Your task to perform on an android device: find photos in the google photos app Image 0: 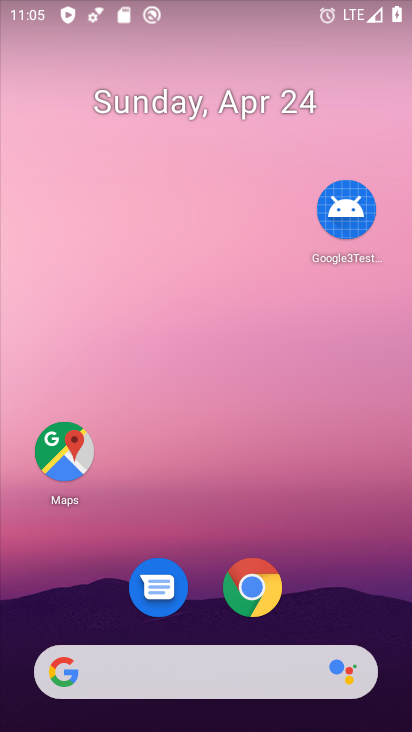
Step 0: drag from (342, 576) to (274, 126)
Your task to perform on an android device: find photos in the google photos app Image 1: 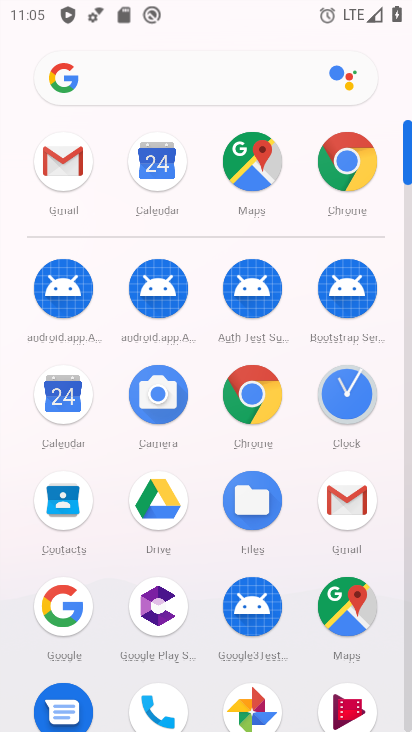
Step 1: drag from (196, 557) to (218, 212)
Your task to perform on an android device: find photos in the google photos app Image 2: 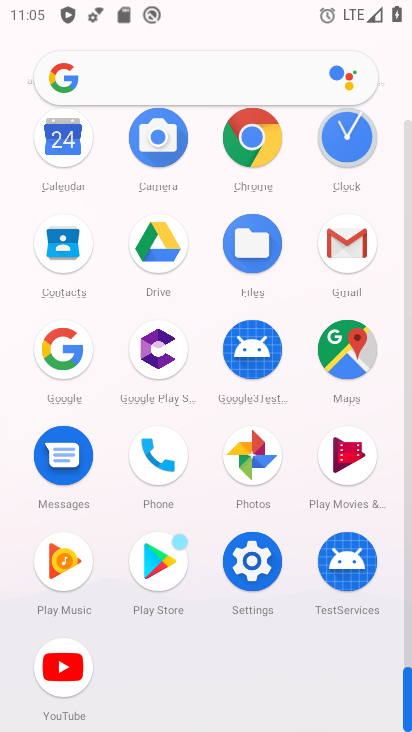
Step 2: click (255, 465)
Your task to perform on an android device: find photos in the google photos app Image 3: 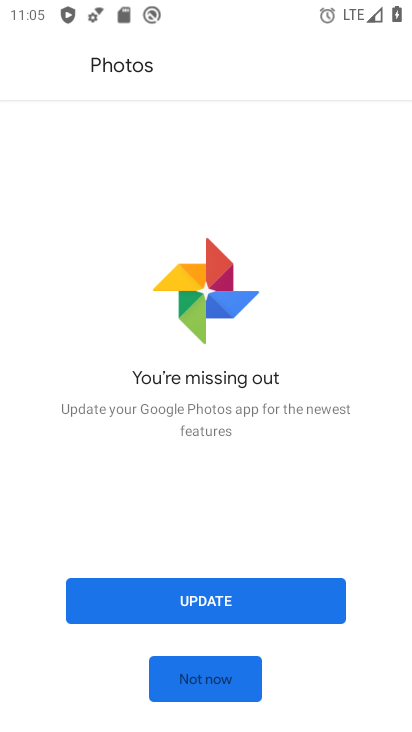
Step 3: click (270, 603)
Your task to perform on an android device: find photos in the google photos app Image 4: 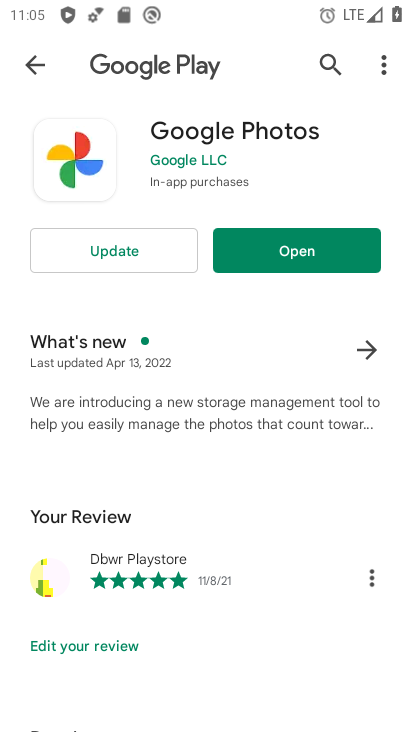
Step 4: click (127, 256)
Your task to perform on an android device: find photos in the google photos app Image 5: 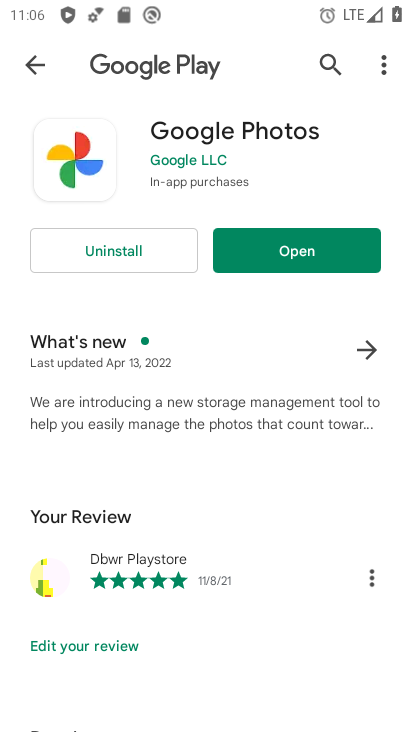
Step 5: click (342, 253)
Your task to perform on an android device: find photos in the google photos app Image 6: 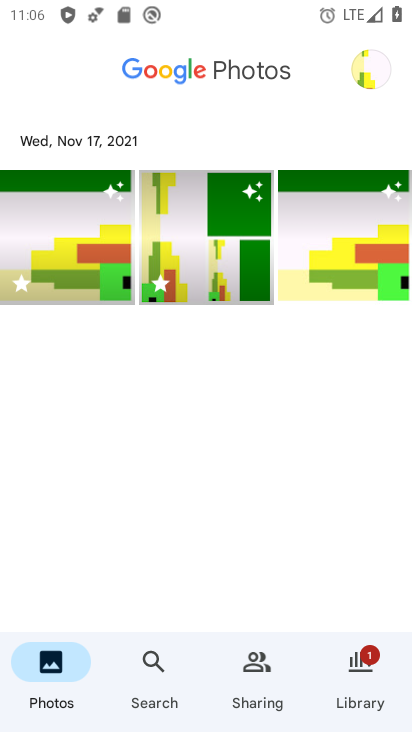
Step 6: task complete